Your task to perform on an android device: Search for seafood restaurants on Google Maps Image 0: 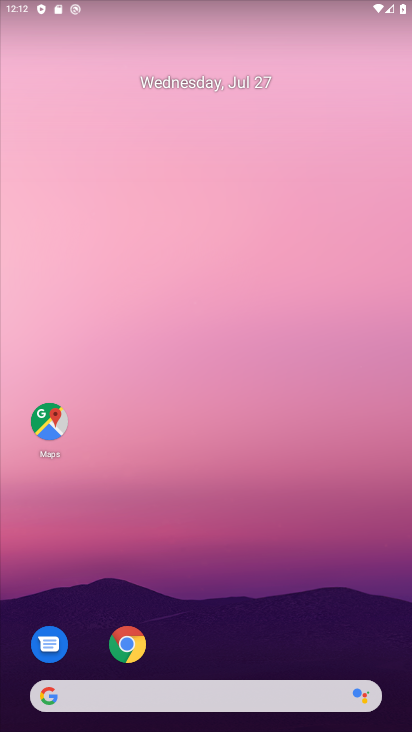
Step 0: press home button
Your task to perform on an android device: Search for seafood restaurants on Google Maps Image 1: 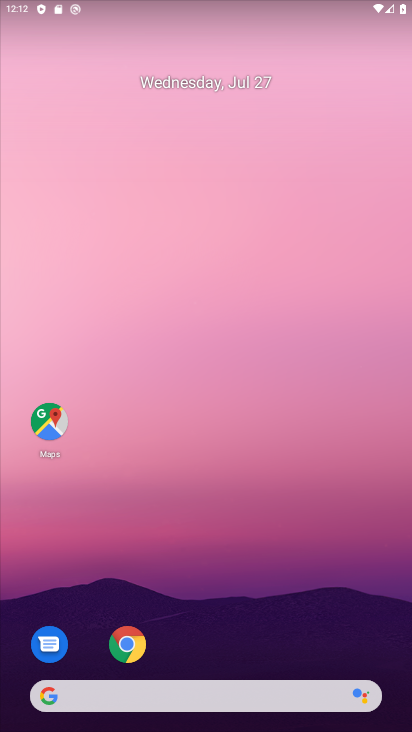
Step 1: click (42, 429)
Your task to perform on an android device: Search for seafood restaurants on Google Maps Image 2: 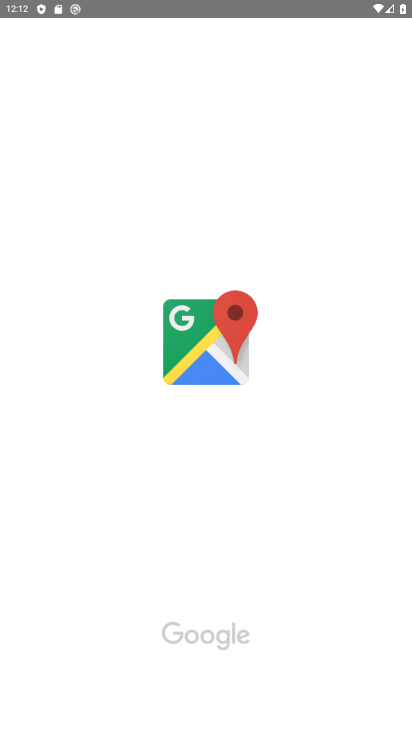
Step 2: click (219, 47)
Your task to perform on an android device: Search for seafood restaurants on Google Maps Image 3: 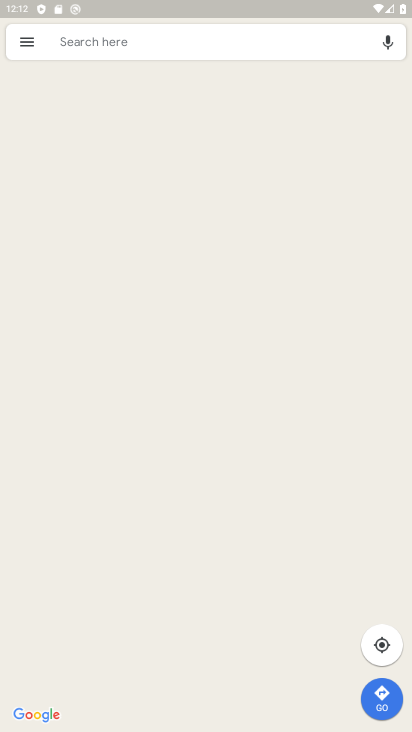
Step 3: click (219, 47)
Your task to perform on an android device: Search for seafood restaurants on Google Maps Image 4: 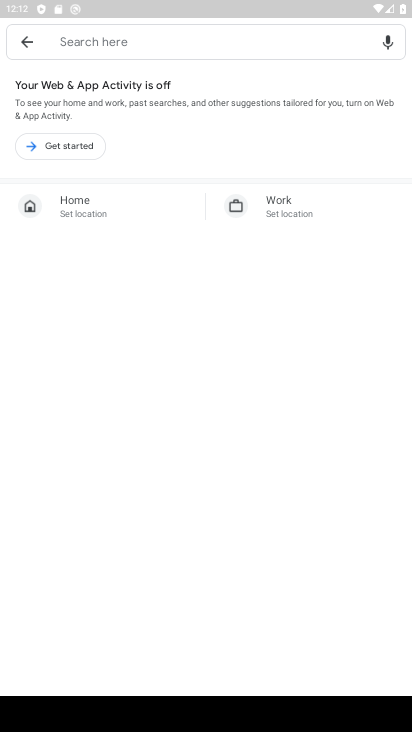
Step 4: type " seafood restaurants "
Your task to perform on an android device: Search for seafood restaurants on Google Maps Image 5: 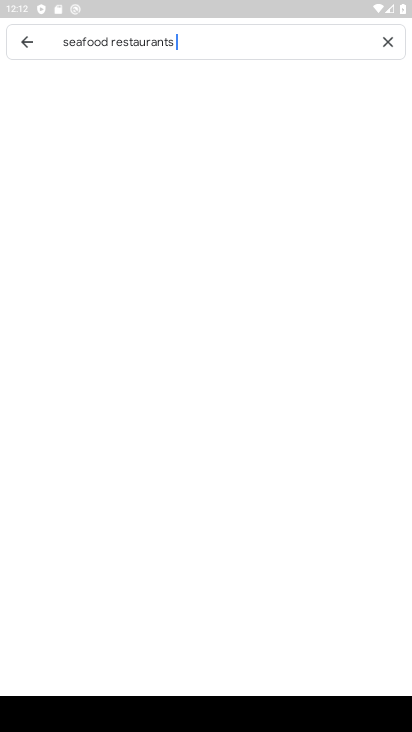
Step 5: type ""
Your task to perform on an android device: Search for seafood restaurants on Google Maps Image 6: 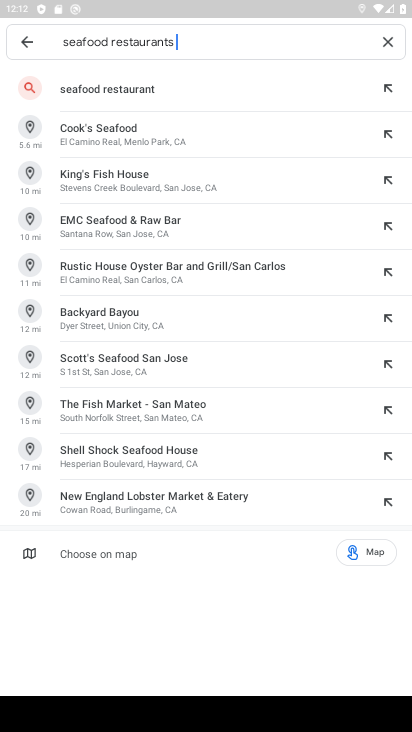
Step 6: click (109, 75)
Your task to perform on an android device: Search for seafood restaurants on Google Maps Image 7: 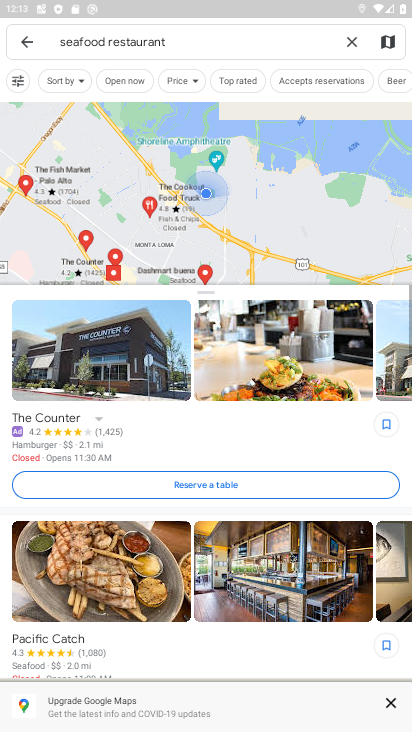
Step 7: task complete